Your task to perform on an android device: Open CNN.com Image 0: 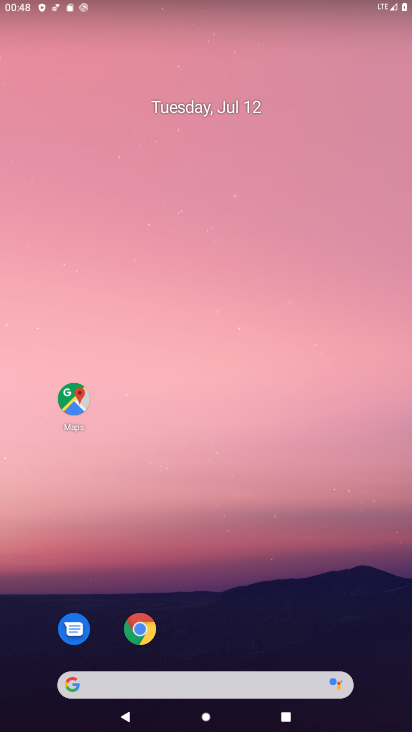
Step 0: click (118, 685)
Your task to perform on an android device: Open CNN.com Image 1: 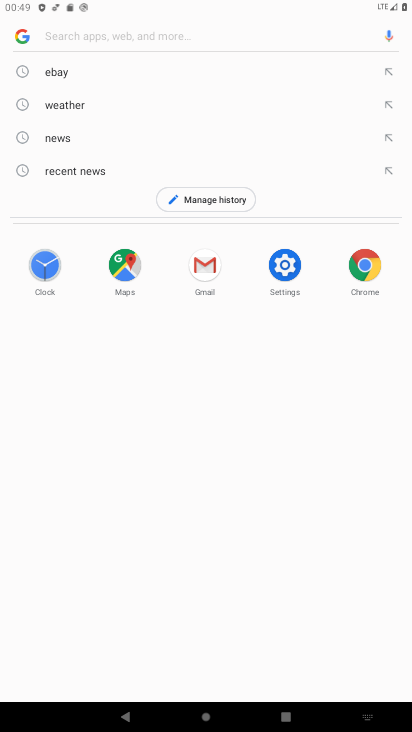
Step 1: type "CNN.com"
Your task to perform on an android device: Open CNN.com Image 2: 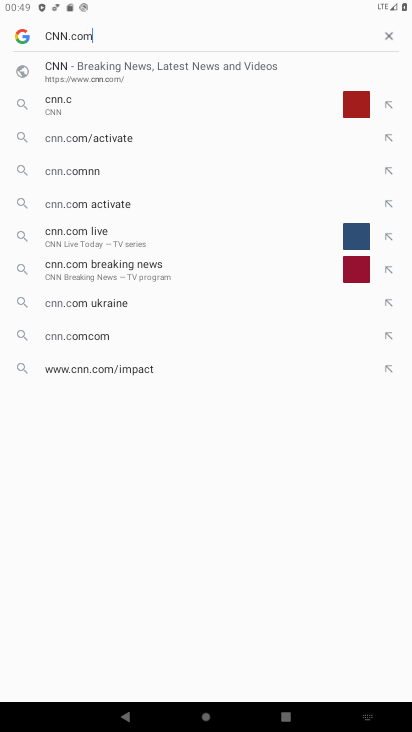
Step 2: type ""
Your task to perform on an android device: Open CNN.com Image 3: 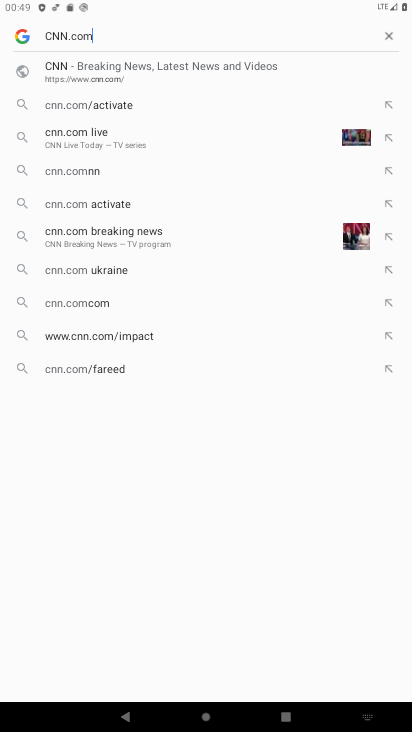
Step 3: type ""
Your task to perform on an android device: Open CNN.com Image 4: 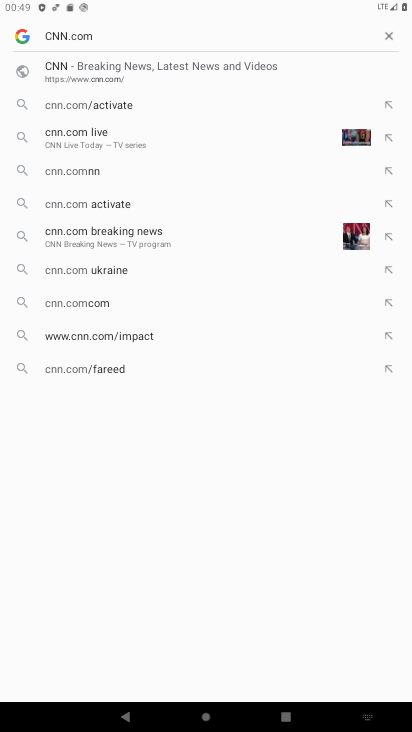
Step 4: task complete